Your task to perform on an android device: Open location settings Image 0: 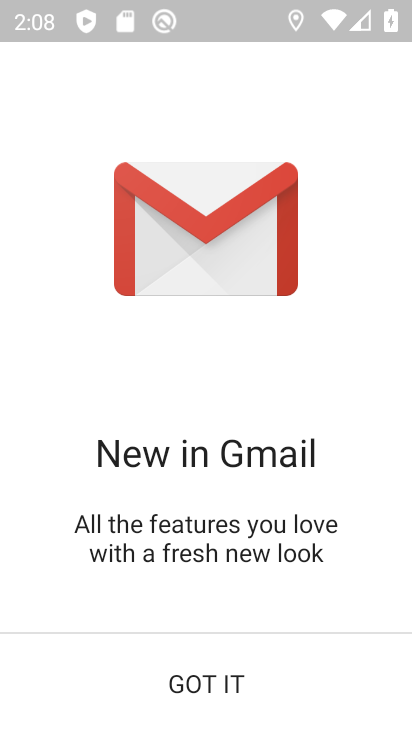
Step 0: press home button
Your task to perform on an android device: Open location settings Image 1: 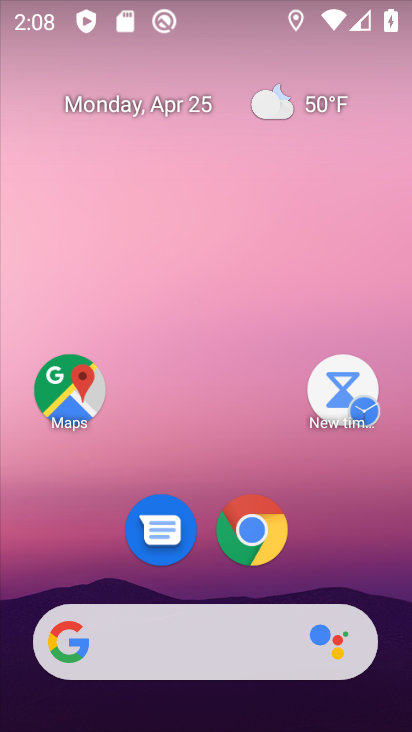
Step 1: drag from (197, 584) to (177, 11)
Your task to perform on an android device: Open location settings Image 2: 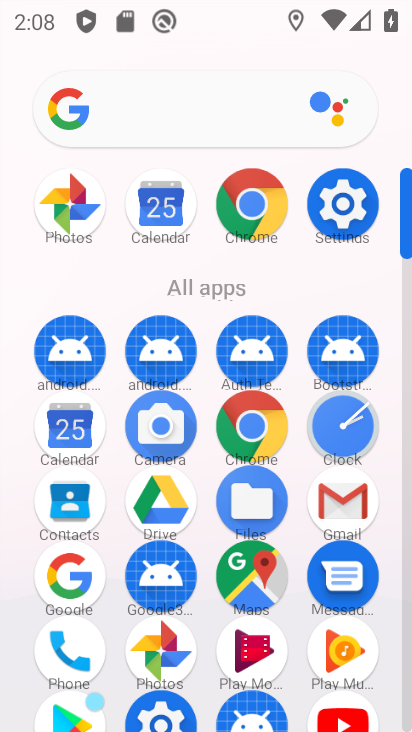
Step 2: click (338, 187)
Your task to perform on an android device: Open location settings Image 3: 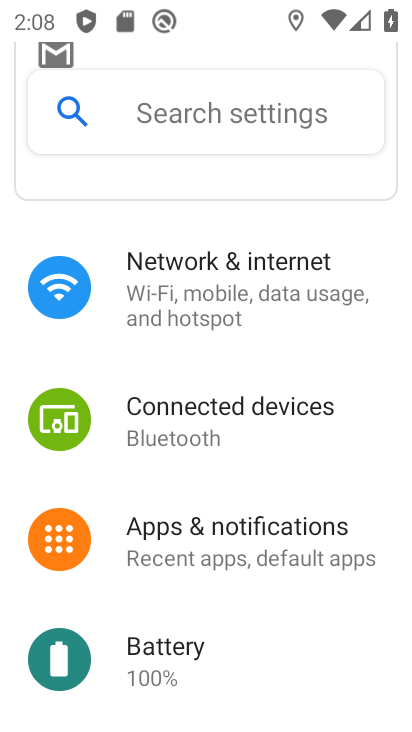
Step 3: drag from (254, 552) to (199, 211)
Your task to perform on an android device: Open location settings Image 4: 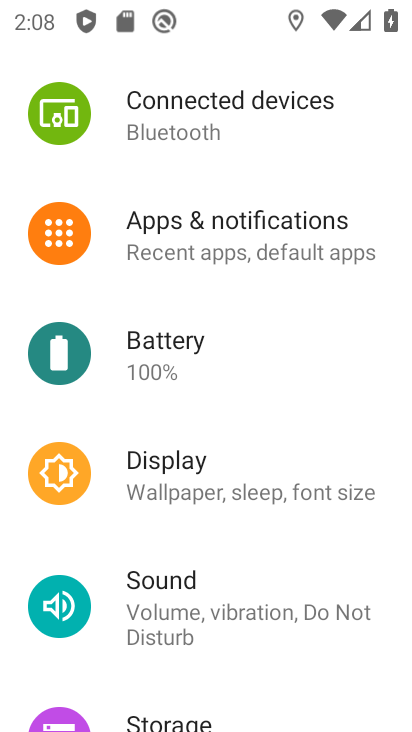
Step 4: drag from (229, 580) to (202, 253)
Your task to perform on an android device: Open location settings Image 5: 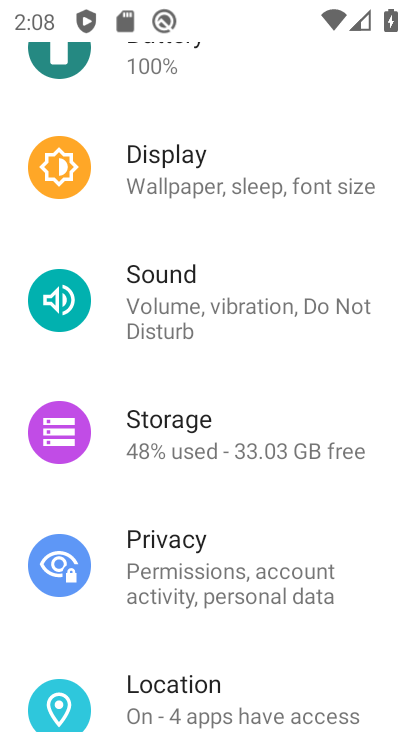
Step 5: click (159, 693)
Your task to perform on an android device: Open location settings Image 6: 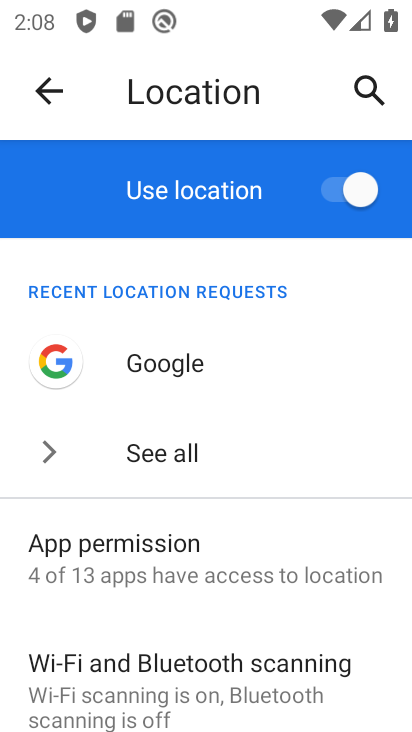
Step 6: drag from (159, 598) to (147, 192)
Your task to perform on an android device: Open location settings Image 7: 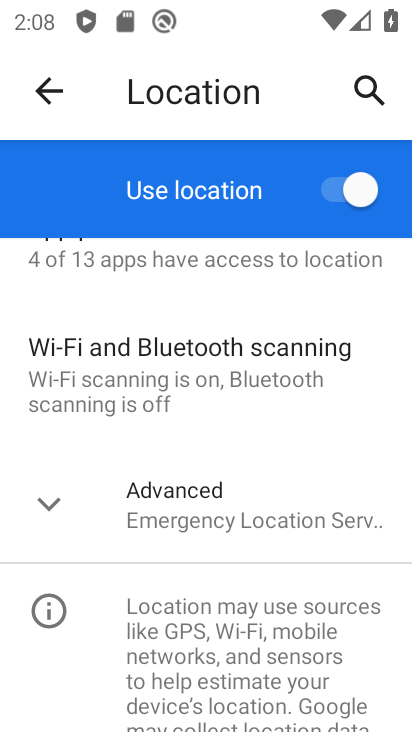
Step 7: click (173, 528)
Your task to perform on an android device: Open location settings Image 8: 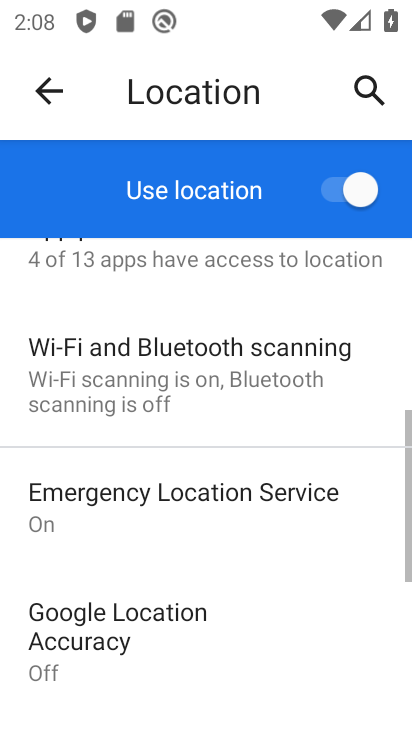
Step 8: task complete